Your task to perform on an android device: delete browsing data in the chrome app Image 0: 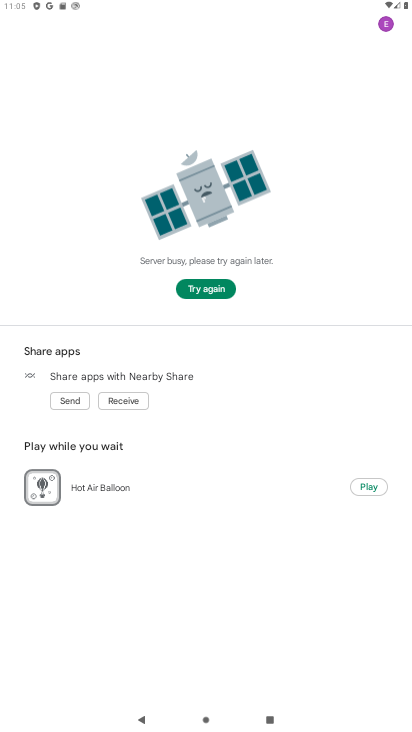
Step 0: press home button
Your task to perform on an android device: delete browsing data in the chrome app Image 1: 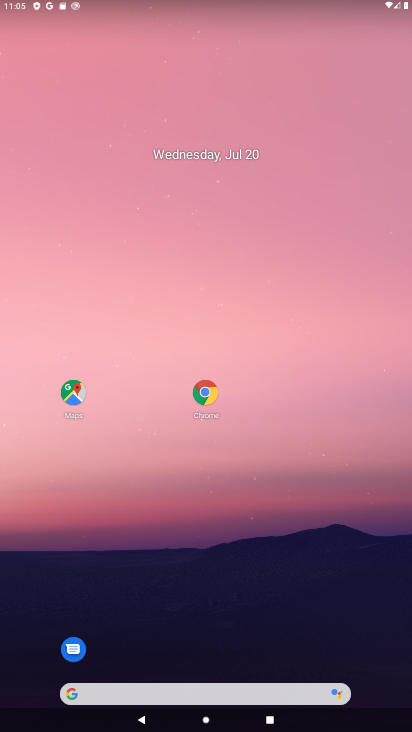
Step 1: click (210, 398)
Your task to perform on an android device: delete browsing data in the chrome app Image 2: 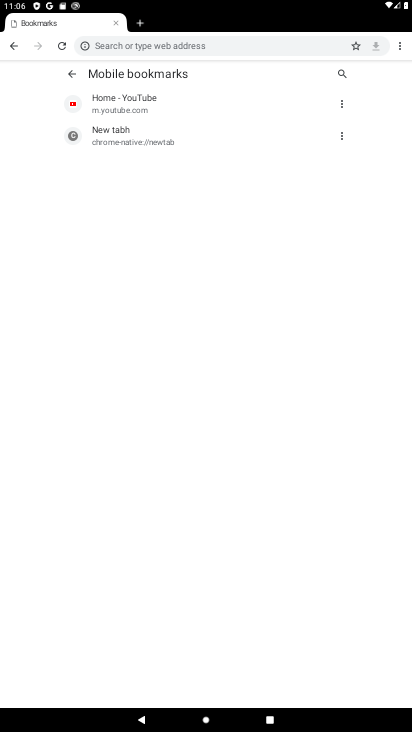
Step 2: click (402, 43)
Your task to perform on an android device: delete browsing data in the chrome app Image 3: 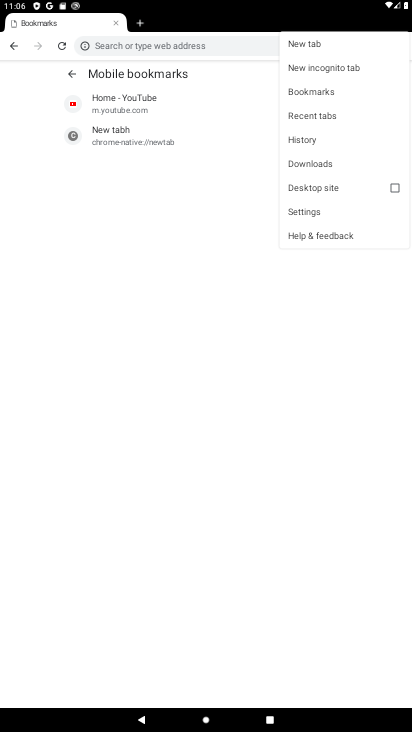
Step 3: click (319, 209)
Your task to perform on an android device: delete browsing data in the chrome app Image 4: 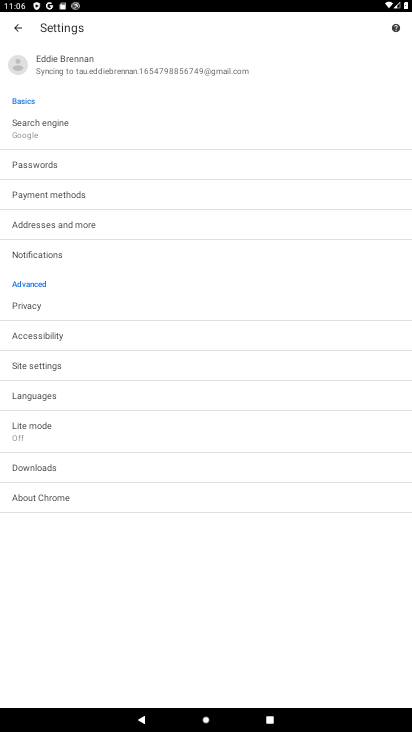
Step 4: click (57, 299)
Your task to perform on an android device: delete browsing data in the chrome app Image 5: 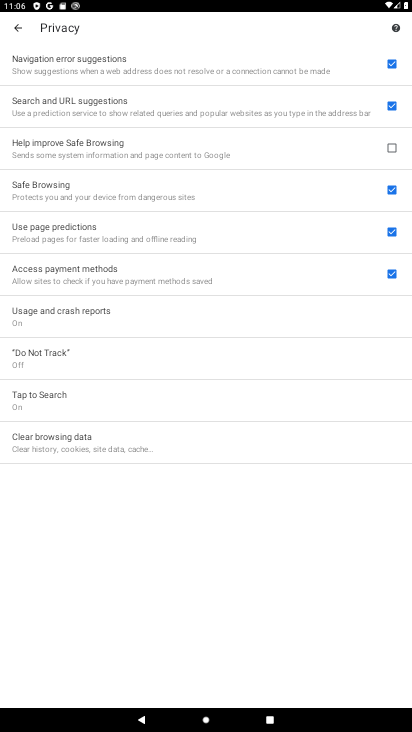
Step 5: click (137, 440)
Your task to perform on an android device: delete browsing data in the chrome app Image 6: 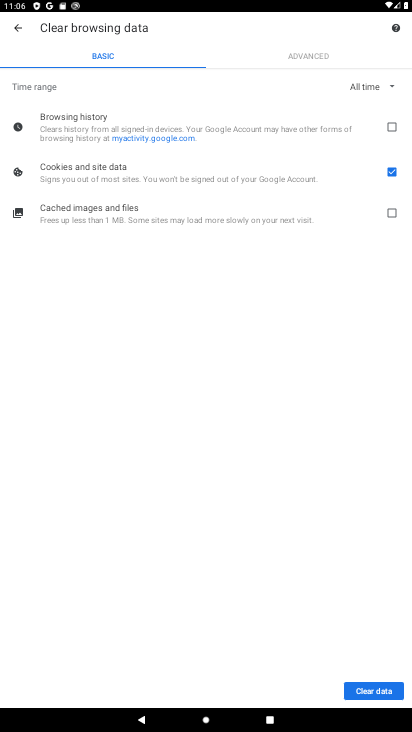
Step 6: click (377, 689)
Your task to perform on an android device: delete browsing data in the chrome app Image 7: 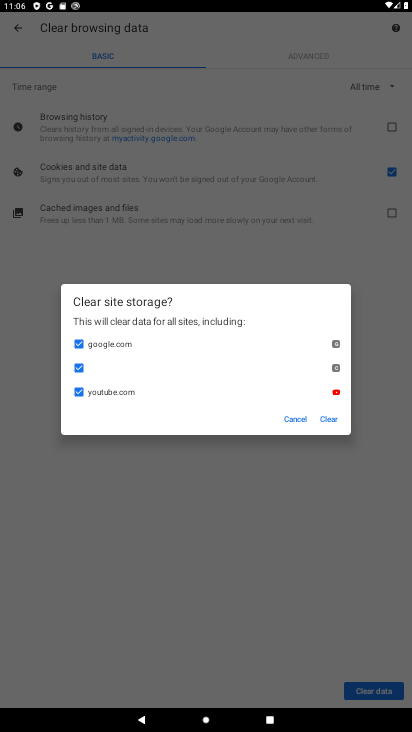
Step 7: click (334, 418)
Your task to perform on an android device: delete browsing data in the chrome app Image 8: 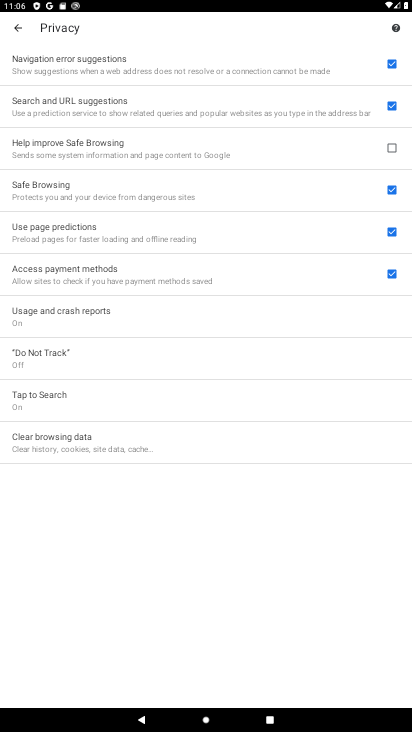
Step 8: task complete